Your task to perform on an android device: Open sound settings Image 0: 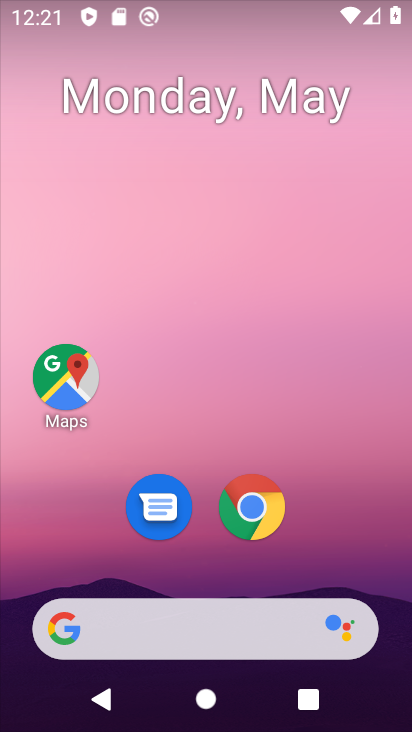
Step 0: drag from (234, 725) to (193, 1)
Your task to perform on an android device: Open sound settings Image 1: 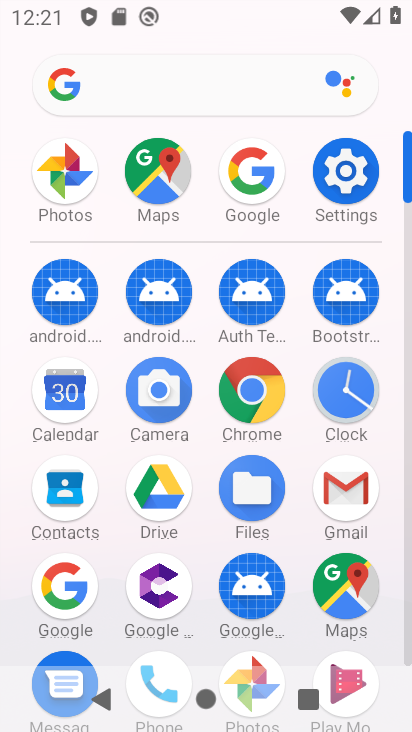
Step 1: click (350, 170)
Your task to perform on an android device: Open sound settings Image 2: 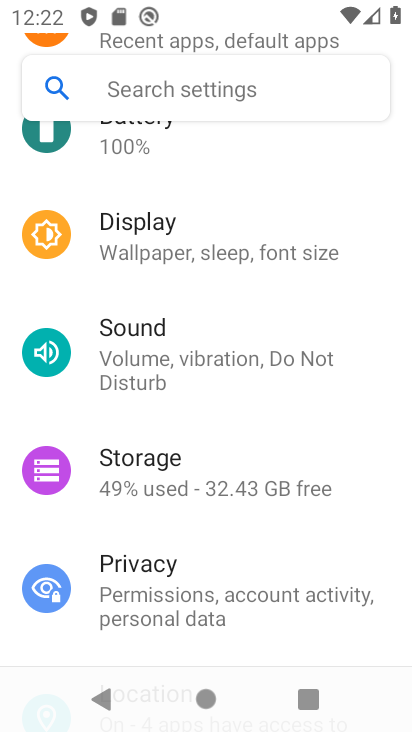
Step 2: click (139, 341)
Your task to perform on an android device: Open sound settings Image 3: 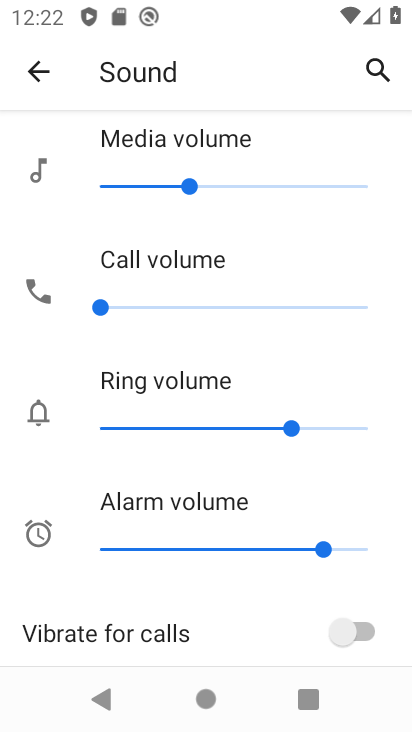
Step 3: task complete